Your task to perform on an android device: Go to eBay Image 0: 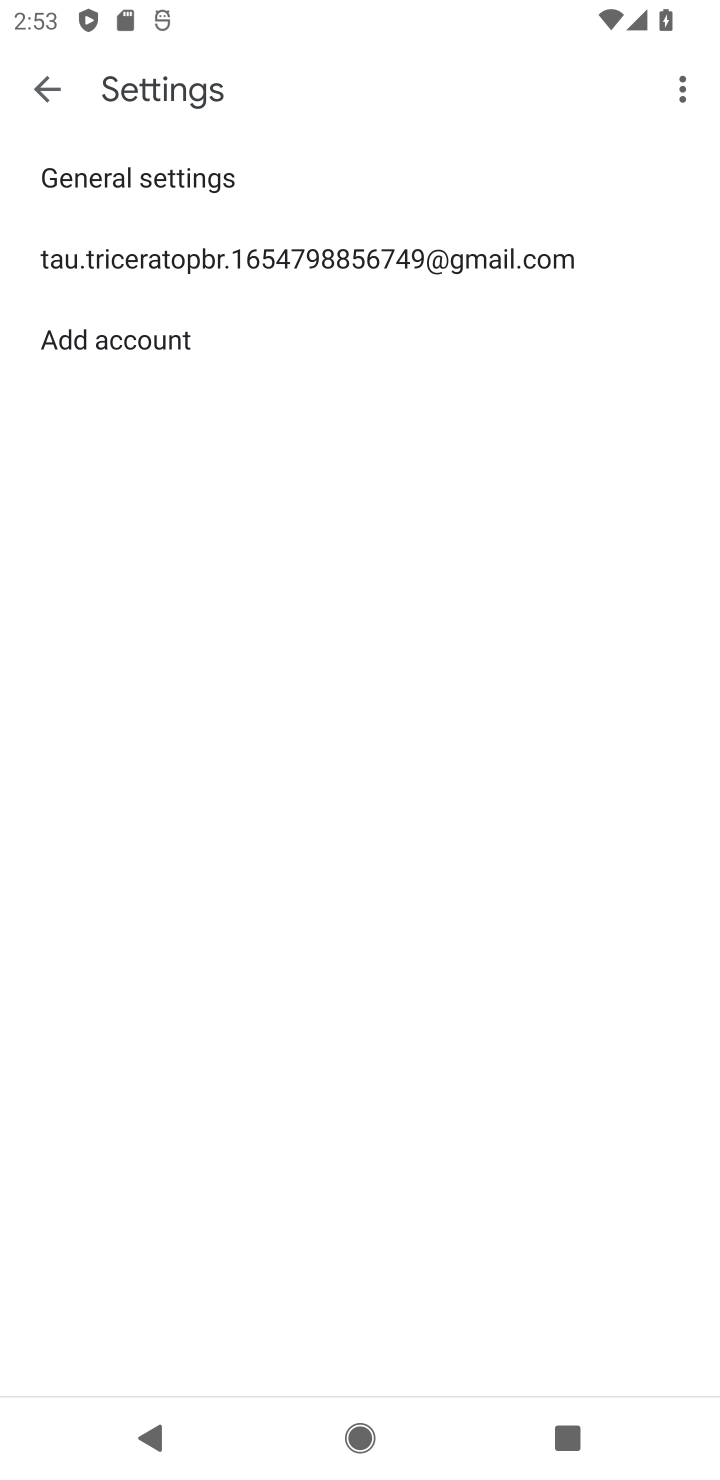
Step 0: press home button
Your task to perform on an android device: Go to eBay Image 1: 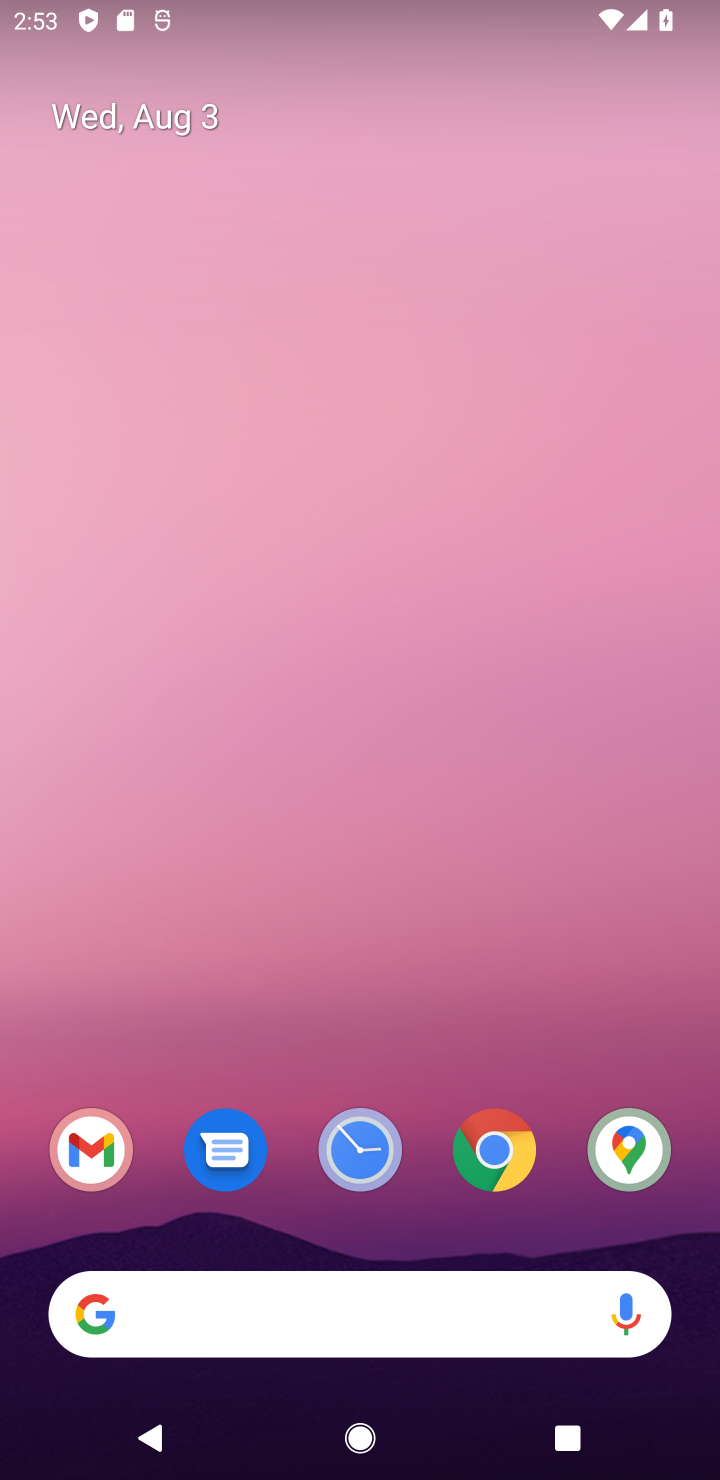
Step 1: click (469, 1156)
Your task to perform on an android device: Go to eBay Image 2: 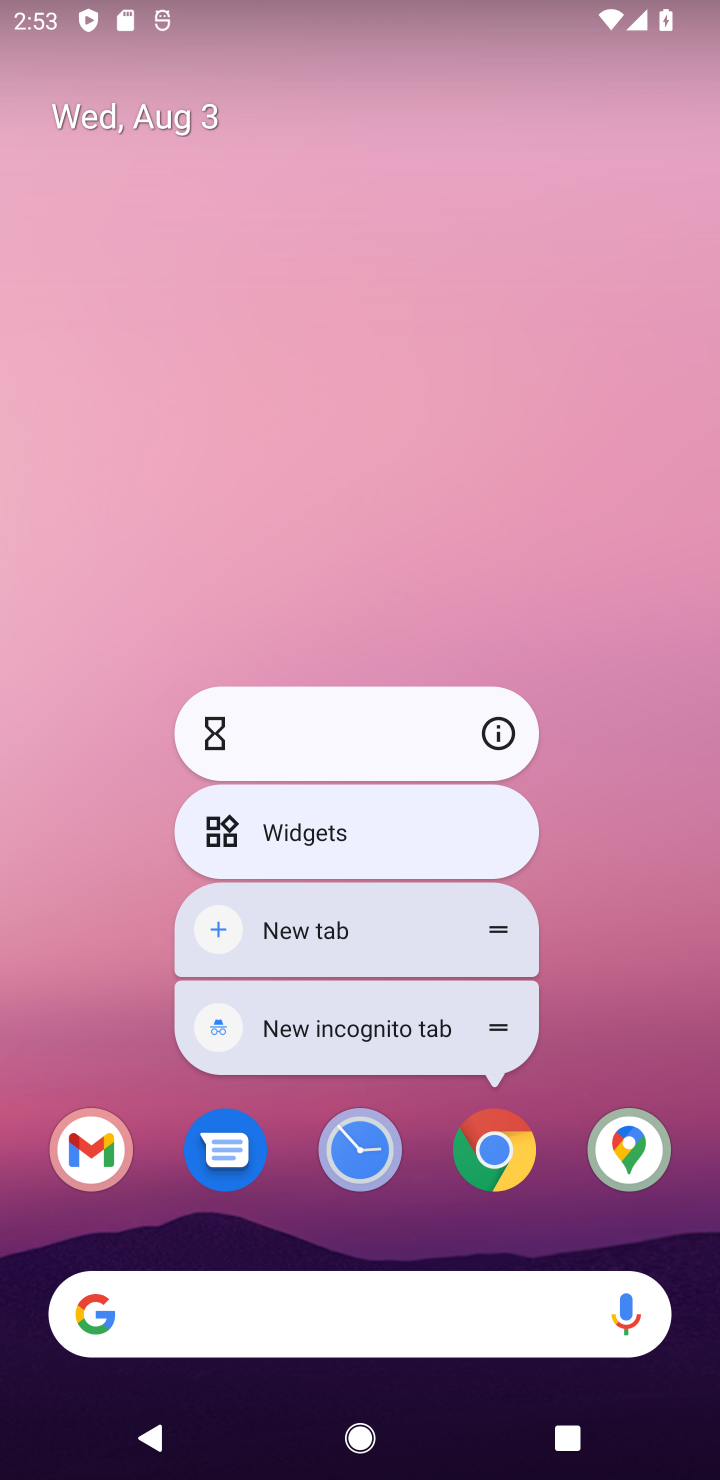
Step 2: click (512, 1128)
Your task to perform on an android device: Go to eBay Image 3: 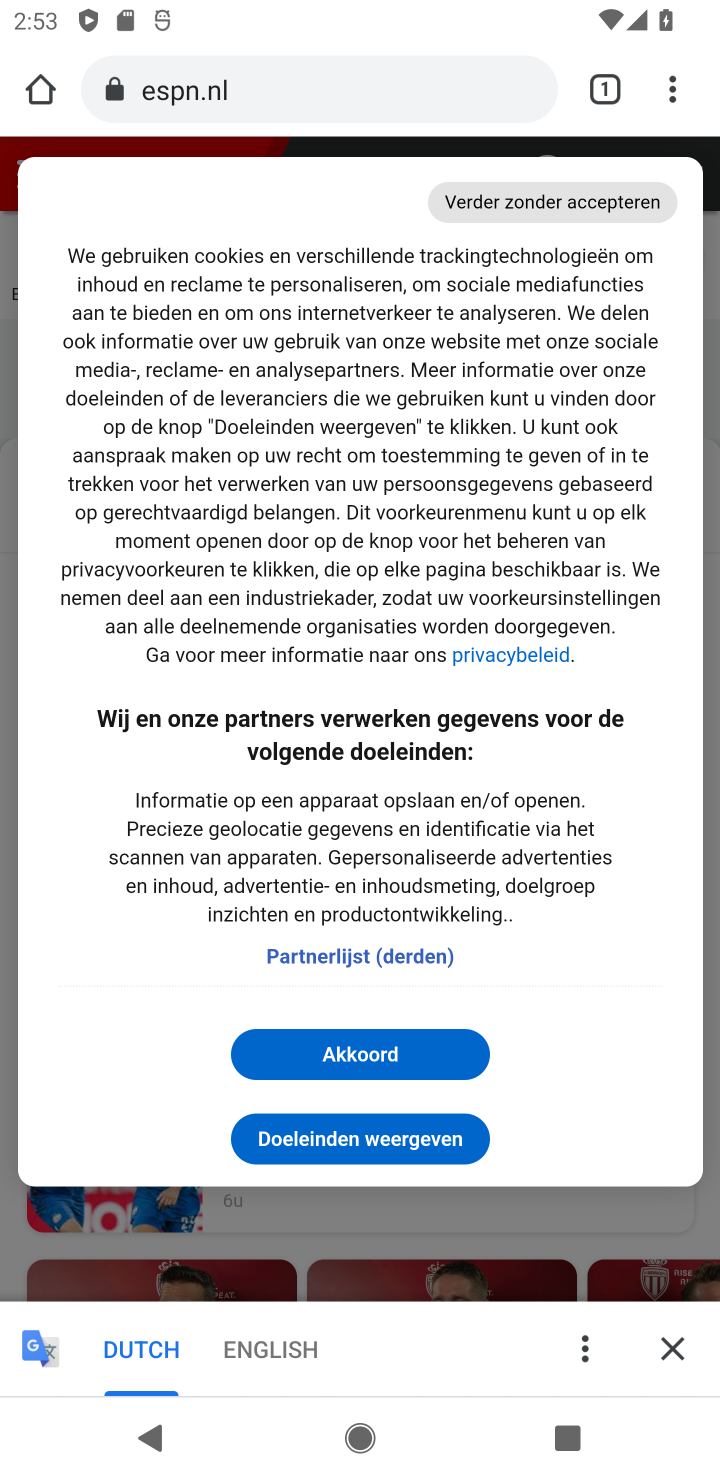
Step 3: click (270, 88)
Your task to perform on an android device: Go to eBay Image 4: 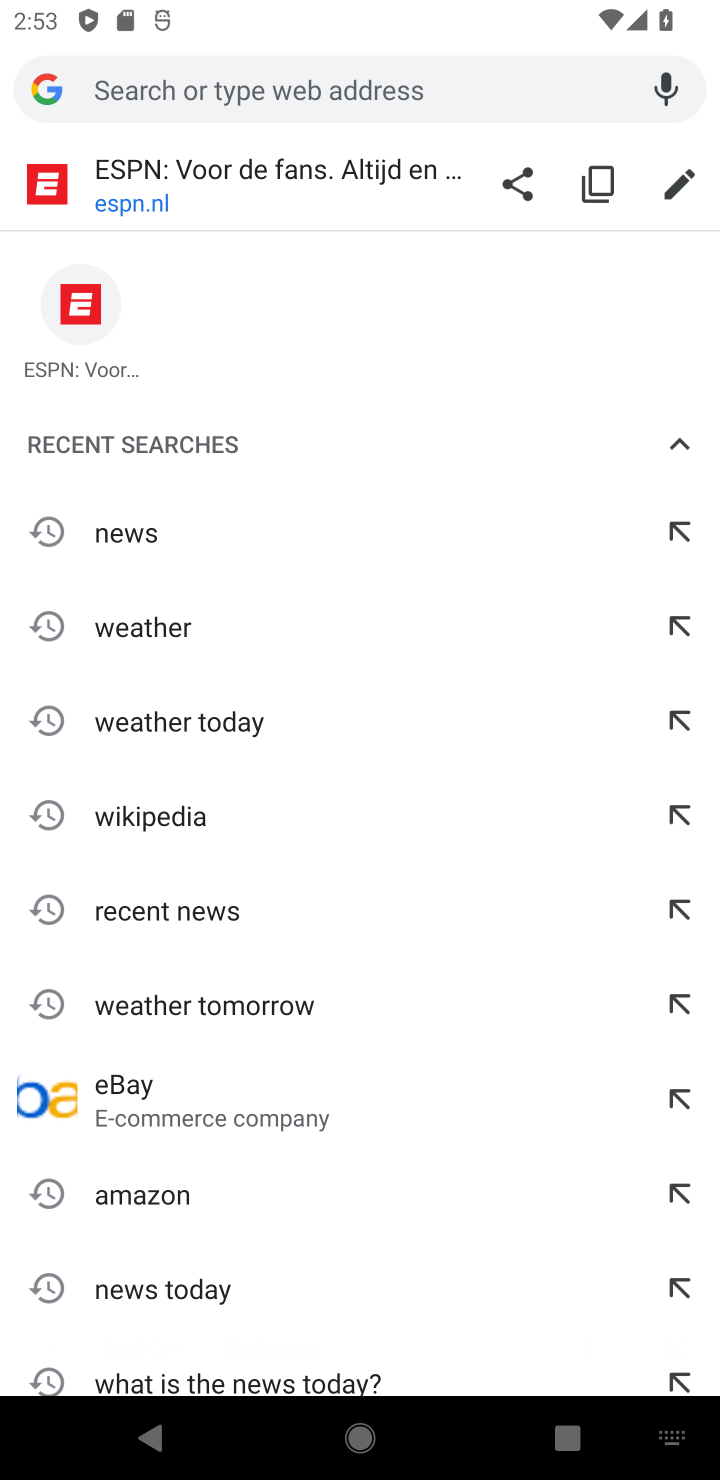
Step 4: type "ebay"
Your task to perform on an android device: Go to eBay Image 5: 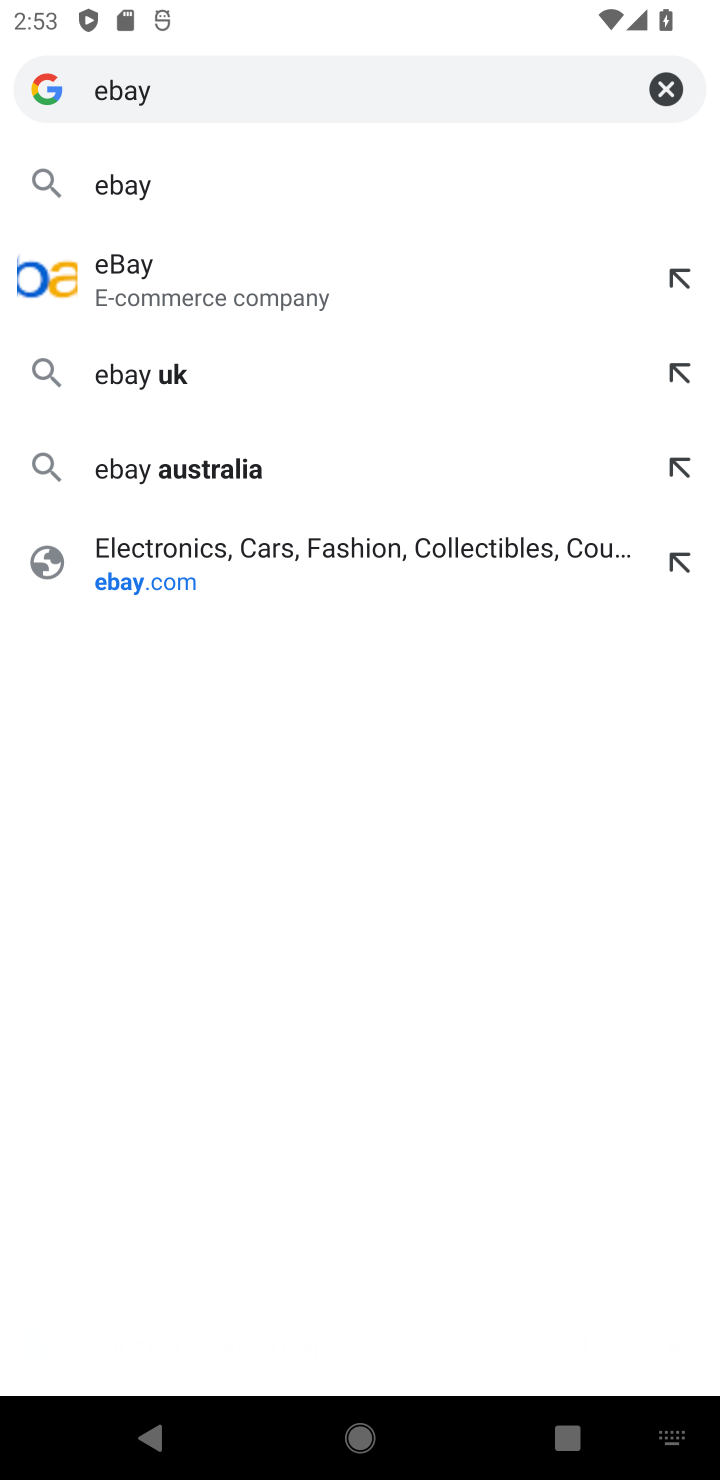
Step 5: click (126, 190)
Your task to perform on an android device: Go to eBay Image 6: 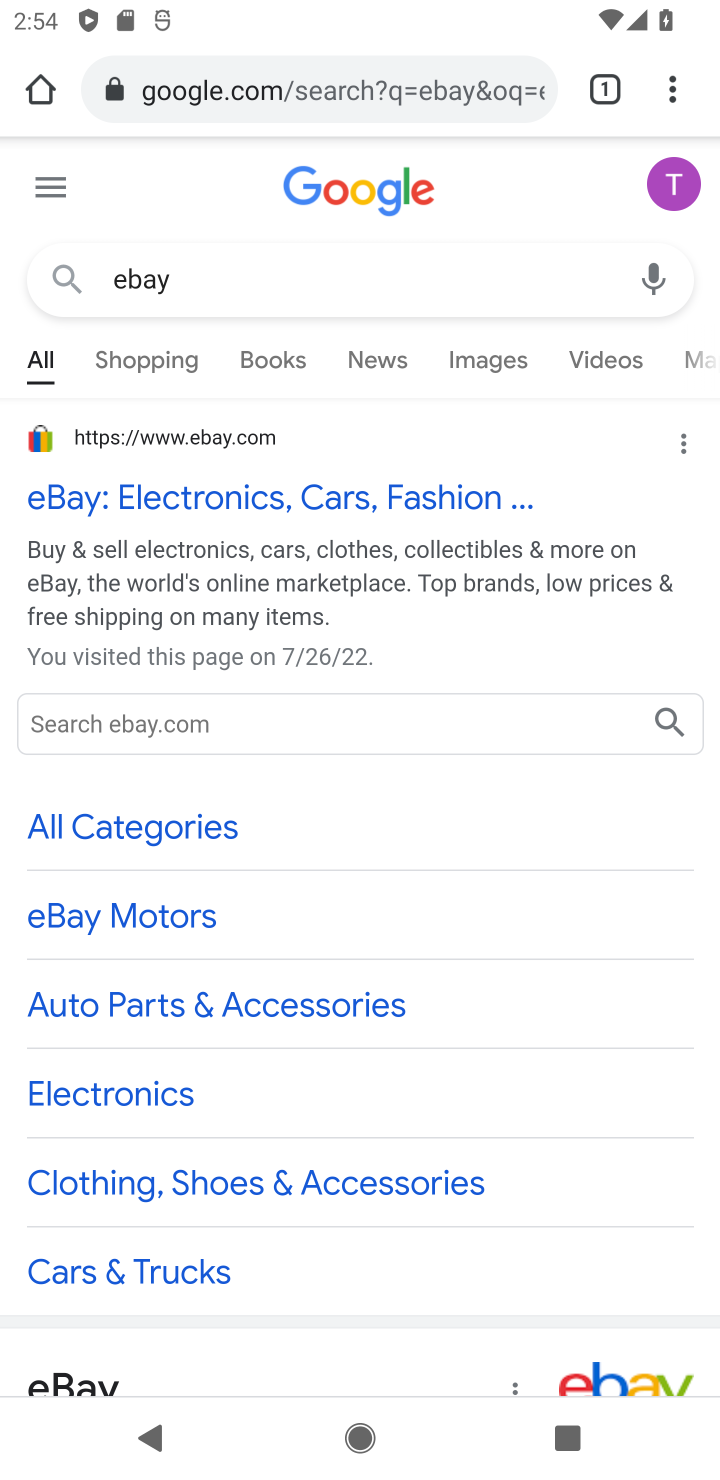
Step 6: click (290, 486)
Your task to perform on an android device: Go to eBay Image 7: 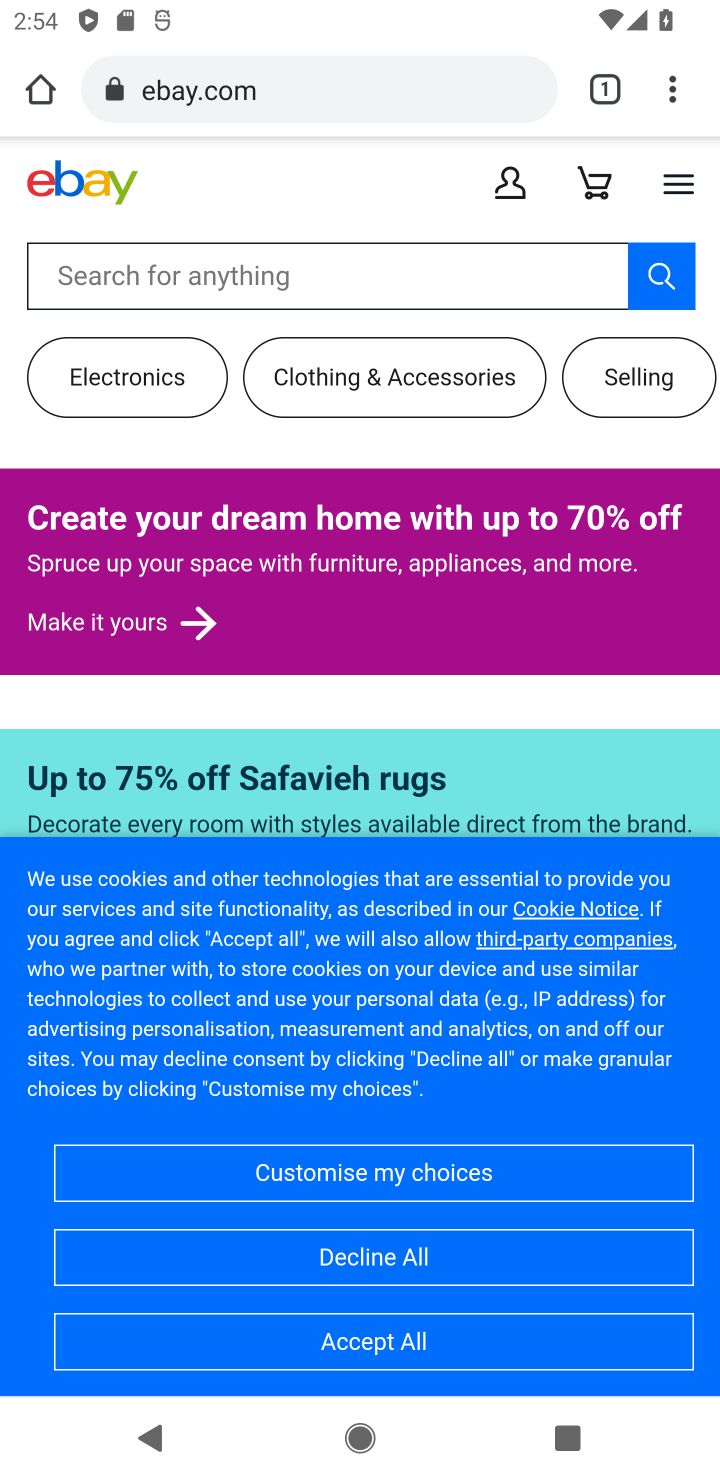
Step 7: task complete